Your task to perform on an android device: Open battery settings Image 0: 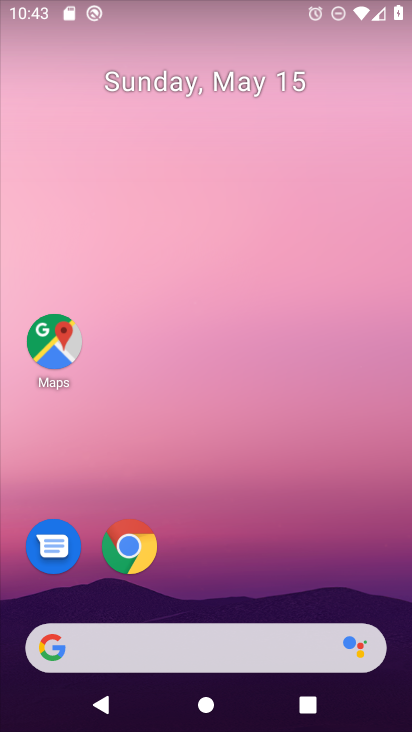
Step 0: drag from (232, 545) to (314, 65)
Your task to perform on an android device: Open battery settings Image 1: 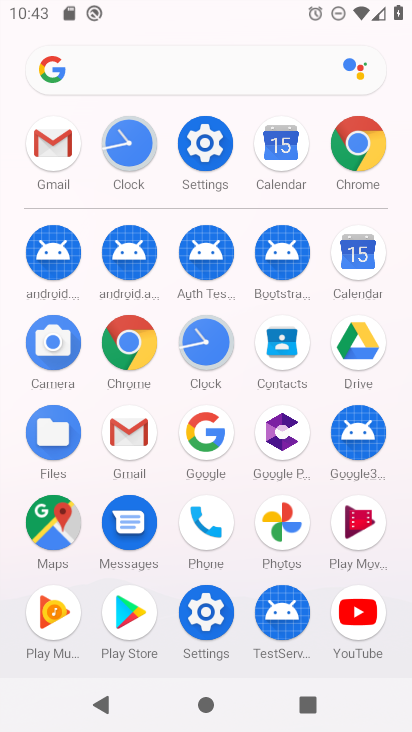
Step 1: click (221, 133)
Your task to perform on an android device: Open battery settings Image 2: 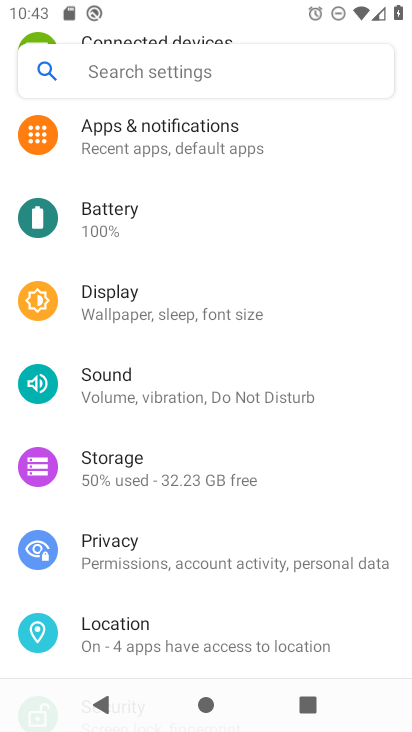
Step 2: click (175, 208)
Your task to perform on an android device: Open battery settings Image 3: 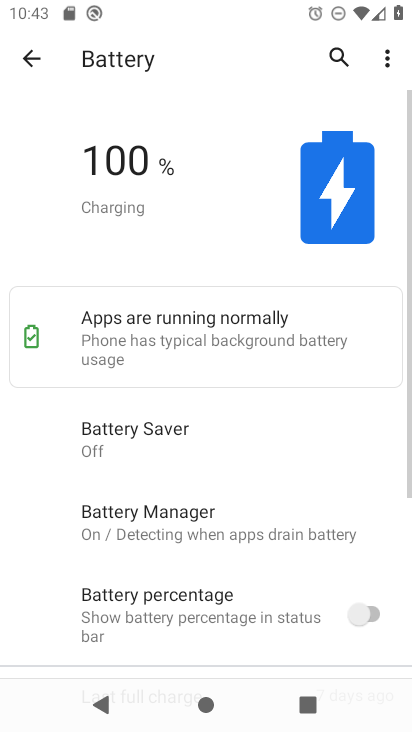
Step 3: task complete